Your task to perform on an android device: Open Google Chrome and open the bookmarks view Image 0: 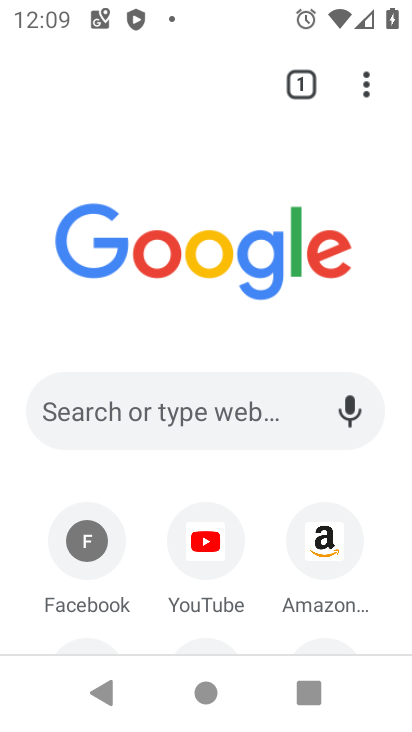
Step 0: press home button
Your task to perform on an android device: Open Google Chrome and open the bookmarks view Image 1: 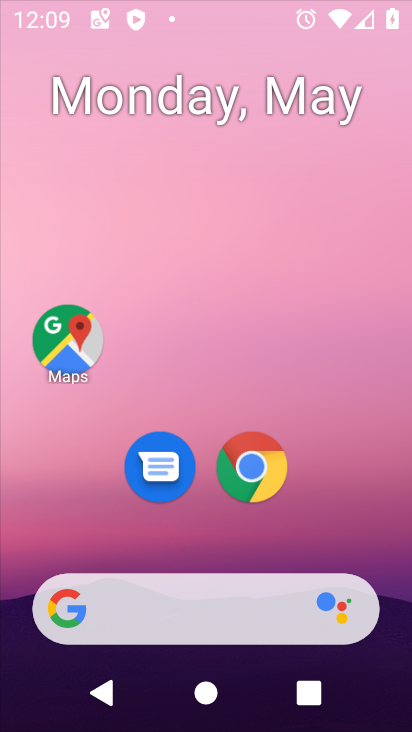
Step 1: drag from (391, 672) to (253, 99)
Your task to perform on an android device: Open Google Chrome and open the bookmarks view Image 2: 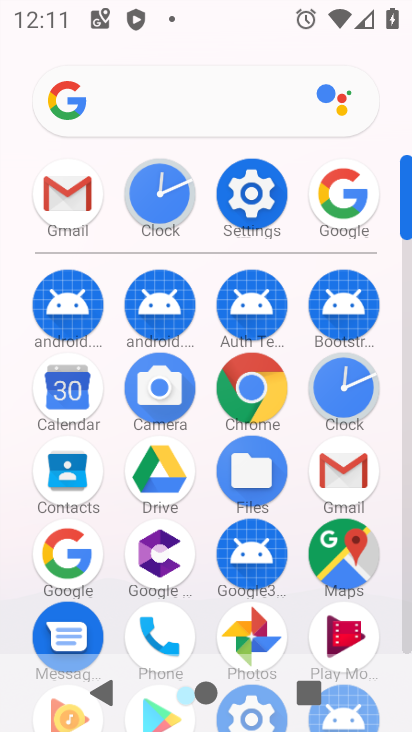
Step 2: click (254, 386)
Your task to perform on an android device: Open Google Chrome and open the bookmarks view Image 3: 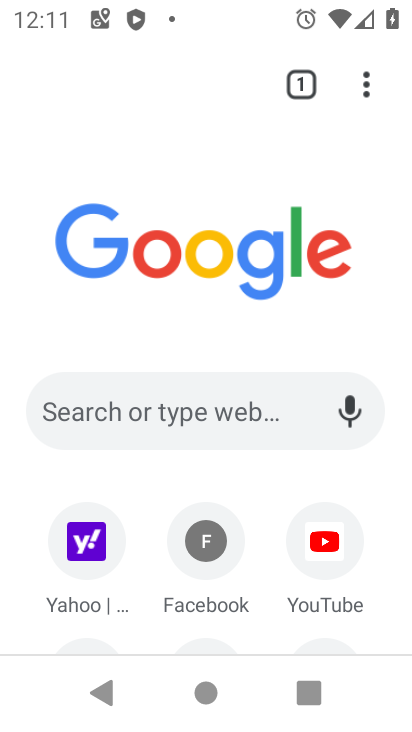
Step 3: click (363, 79)
Your task to perform on an android device: Open Google Chrome and open the bookmarks view Image 4: 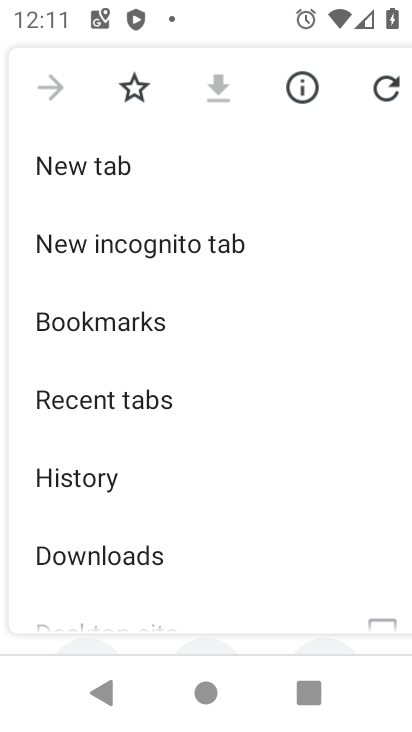
Step 4: click (96, 348)
Your task to perform on an android device: Open Google Chrome and open the bookmarks view Image 5: 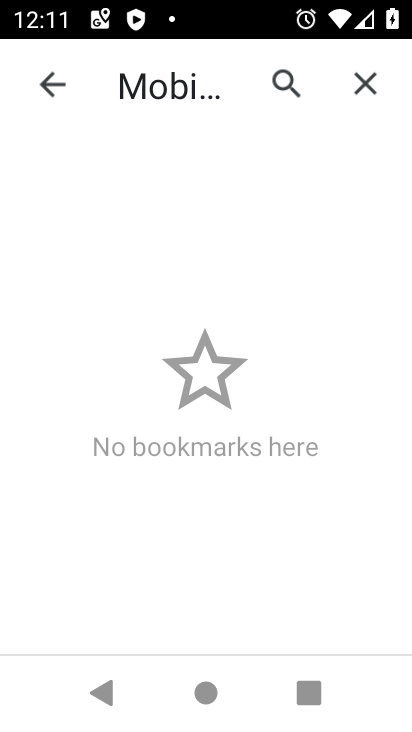
Step 5: task complete